Your task to perform on an android device: toggle javascript in the chrome app Image 0: 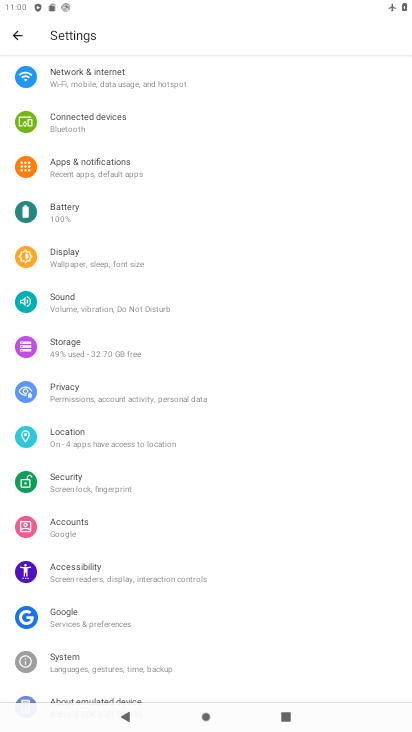
Step 0: click (7, 35)
Your task to perform on an android device: toggle javascript in the chrome app Image 1: 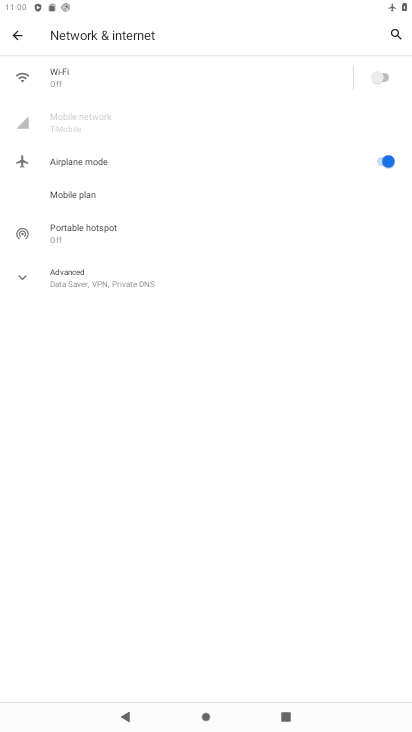
Step 1: click (19, 33)
Your task to perform on an android device: toggle javascript in the chrome app Image 2: 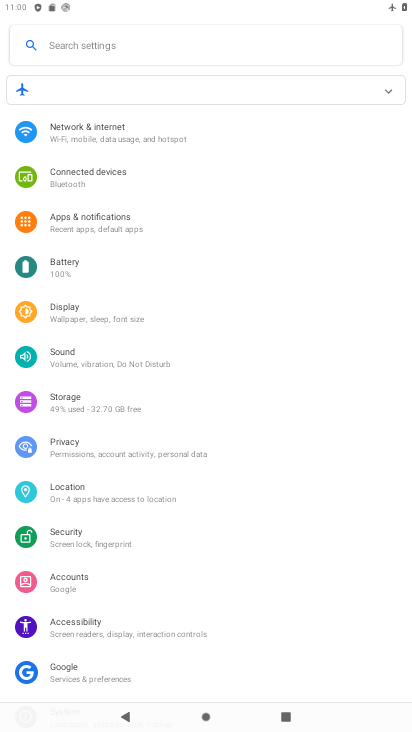
Step 2: press home button
Your task to perform on an android device: toggle javascript in the chrome app Image 3: 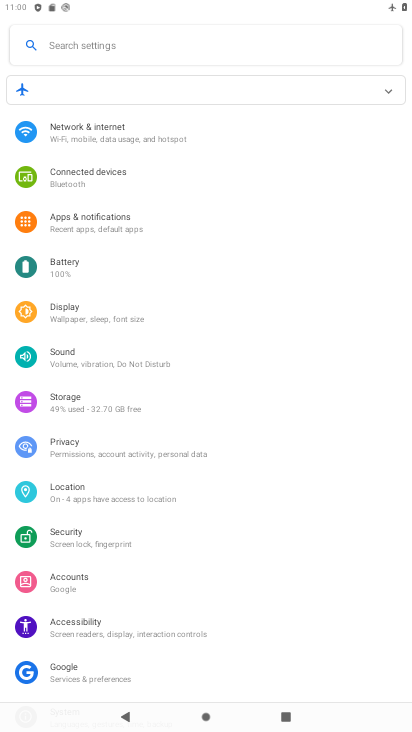
Step 3: press back button
Your task to perform on an android device: toggle javascript in the chrome app Image 4: 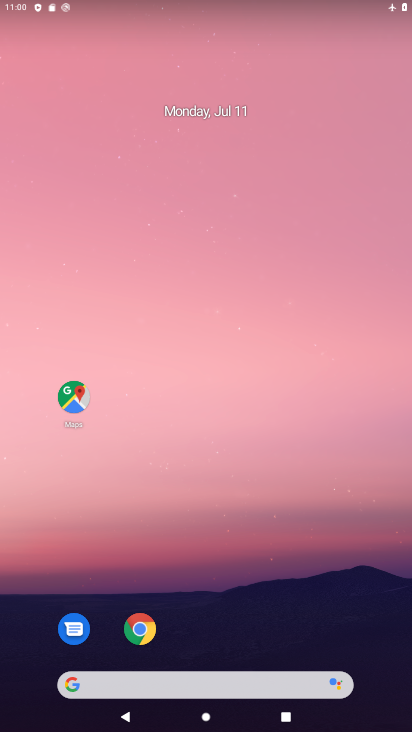
Step 4: drag from (251, 547) to (209, 170)
Your task to perform on an android device: toggle javascript in the chrome app Image 5: 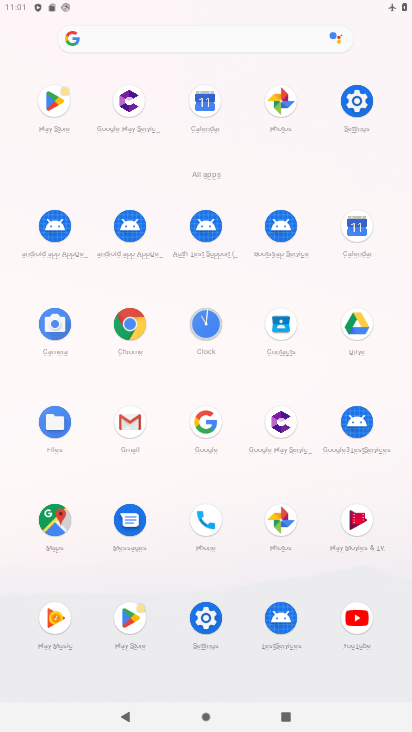
Step 5: click (141, 307)
Your task to perform on an android device: toggle javascript in the chrome app Image 6: 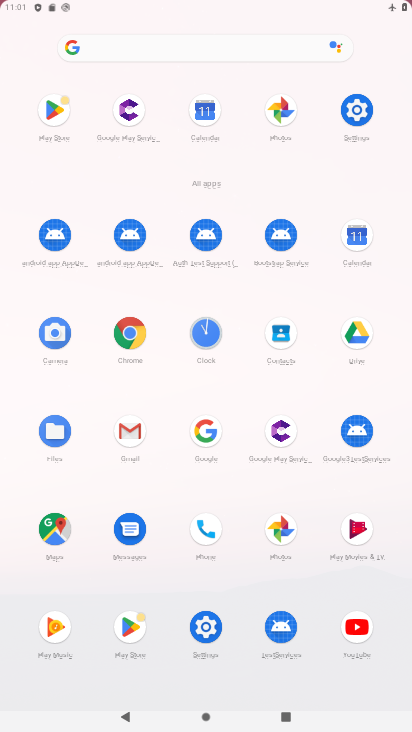
Step 6: click (132, 322)
Your task to perform on an android device: toggle javascript in the chrome app Image 7: 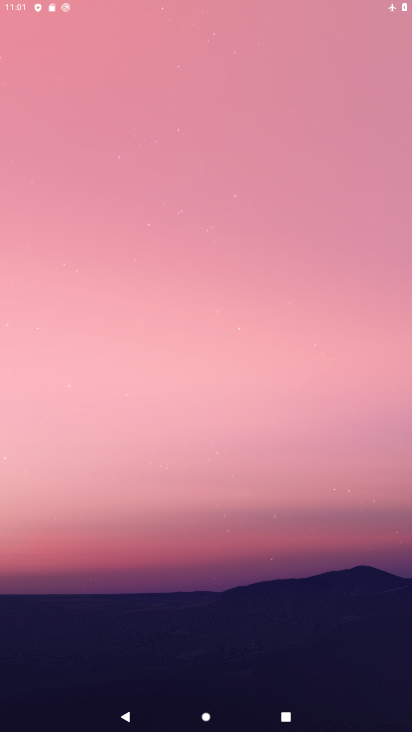
Step 7: click (133, 316)
Your task to perform on an android device: toggle javascript in the chrome app Image 8: 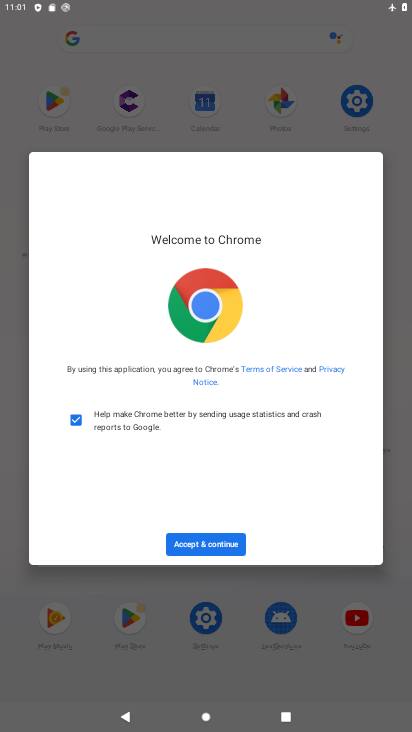
Step 8: click (204, 539)
Your task to perform on an android device: toggle javascript in the chrome app Image 9: 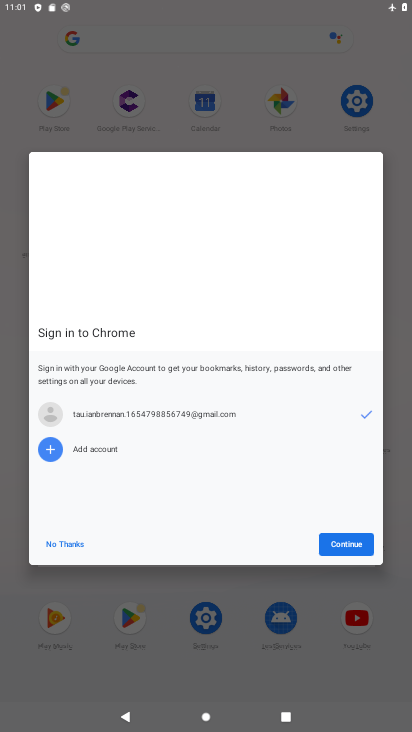
Step 9: click (356, 540)
Your task to perform on an android device: toggle javascript in the chrome app Image 10: 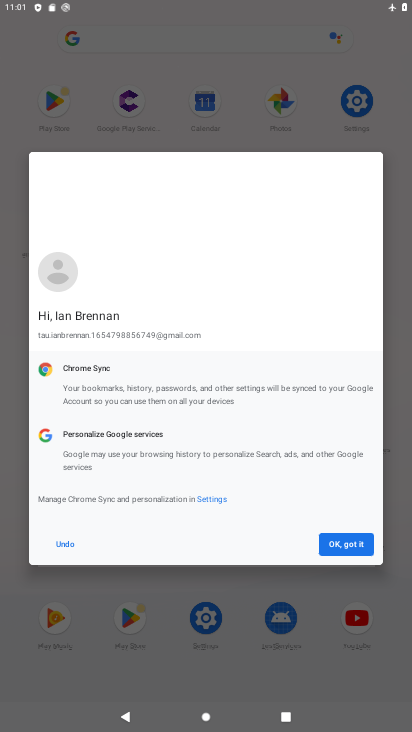
Step 10: click (359, 541)
Your task to perform on an android device: toggle javascript in the chrome app Image 11: 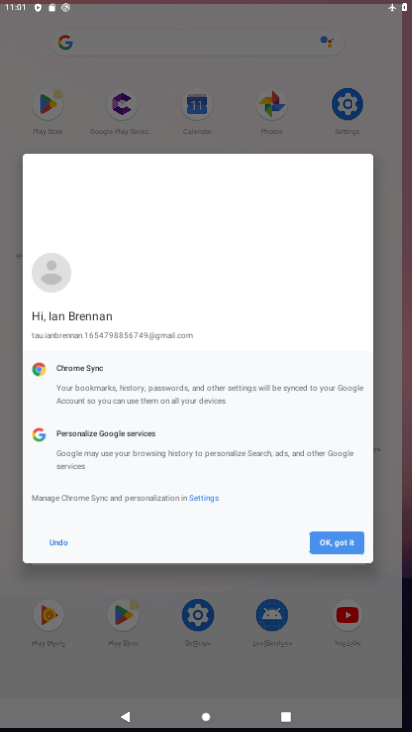
Step 11: click (359, 541)
Your task to perform on an android device: toggle javascript in the chrome app Image 12: 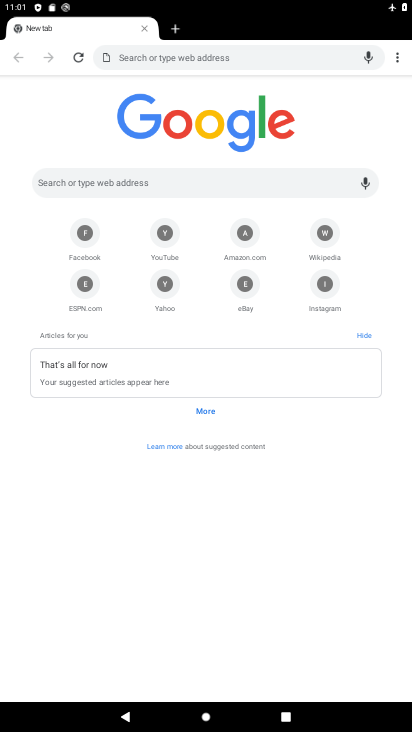
Step 12: drag from (397, 57) to (378, 142)
Your task to perform on an android device: toggle javascript in the chrome app Image 13: 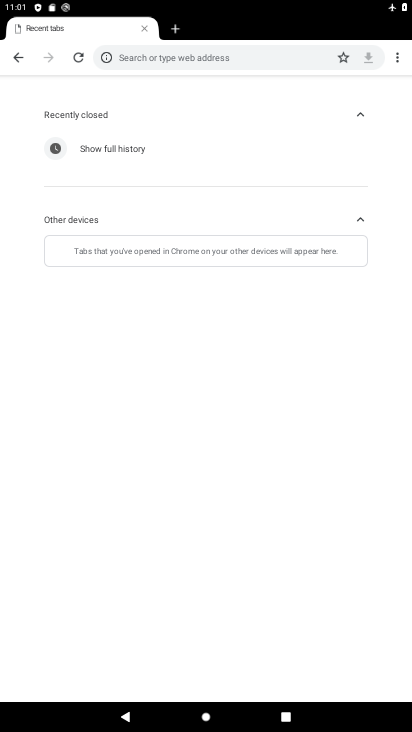
Step 13: click (400, 55)
Your task to perform on an android device: toggle javascript in the chrome app Image 14: 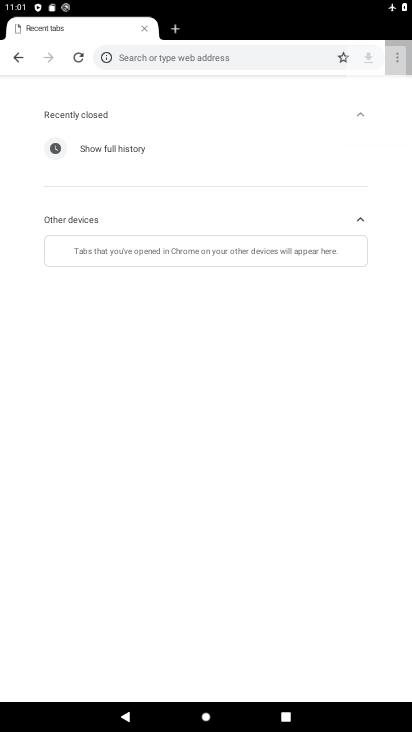
Step 14: click (399, 59)
Your task to perform on an android device: toggle javascript in the chrome app Image 15: 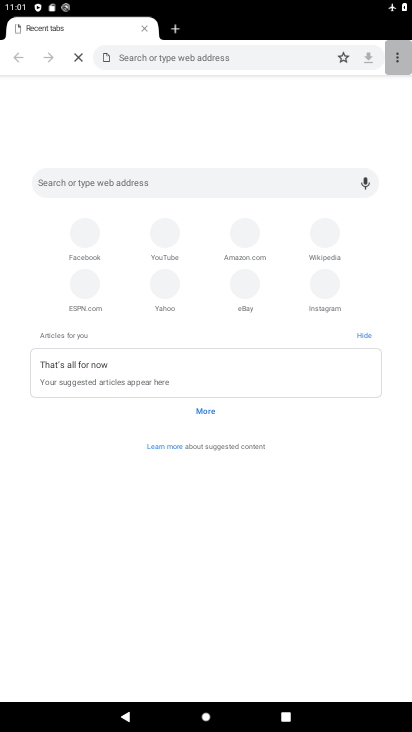
Step 15: click (398, 60)
Your task to perform on an android device: toggle javascript in the chrome app Image 16: 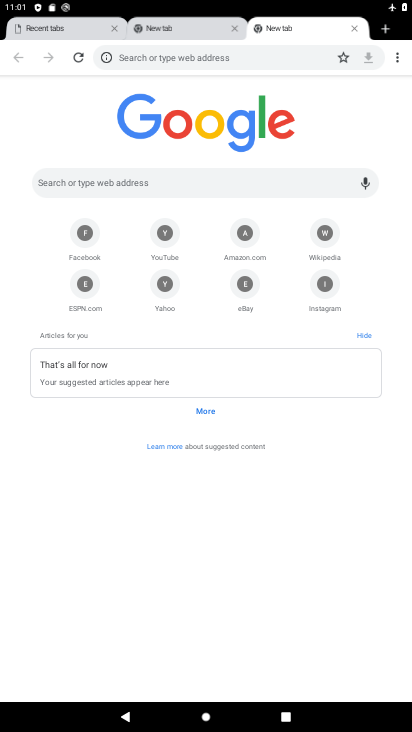
Step 16: click (398, 55)
Your task to perform on an android device: toggle javascript in the chrome app Image 17: 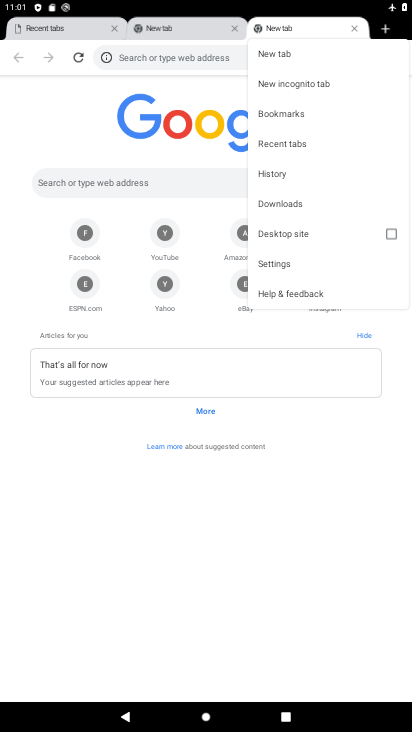
Step 17: click (264, 53)
Your task to perform on an android device: toggle javascript in the chrome app Image 18: 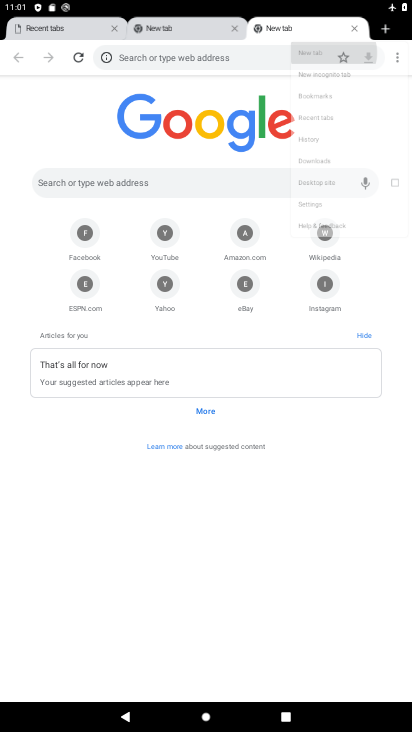
Step 18: click (267, 50)
Your task to perform on an android device: toggle javascript in the chrome app Image 19: 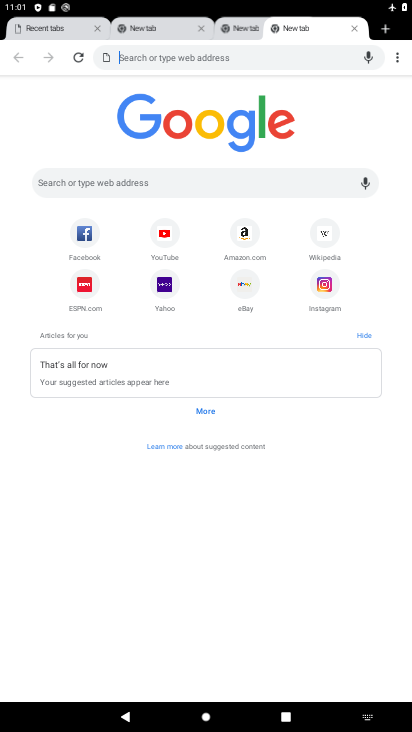
Step 19: click (273, 54)
Your task to perform on an android device: toggle javascript in the chrome app Image 20: 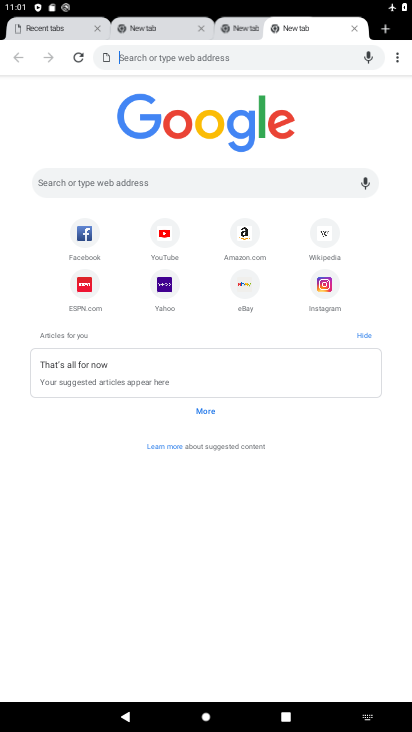
Step 20: click (397, 51)
Your task to perform on an android device: toggle javascript in the chrome app Image 21: 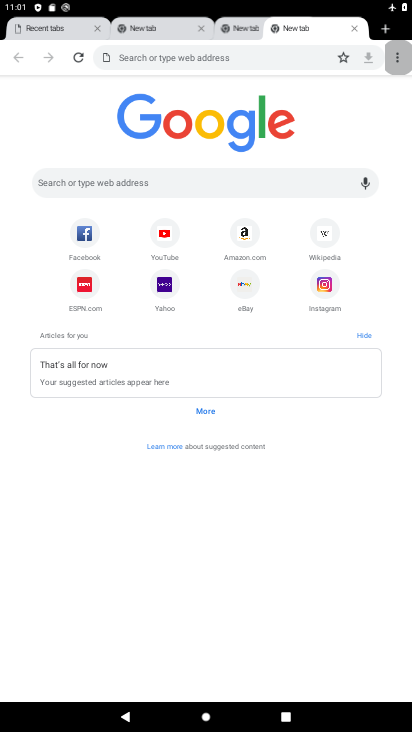
Step 21: click (398, 52)
Your task to perform on an android device: toggle javascript in the chrome app Image 22: 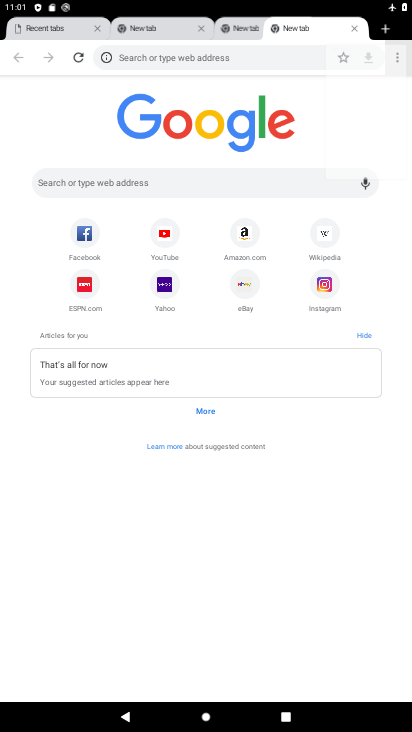
Step 22: click (398, 52)
Your task to perform on an android device: toggle javascript in the chrome app Image 23: 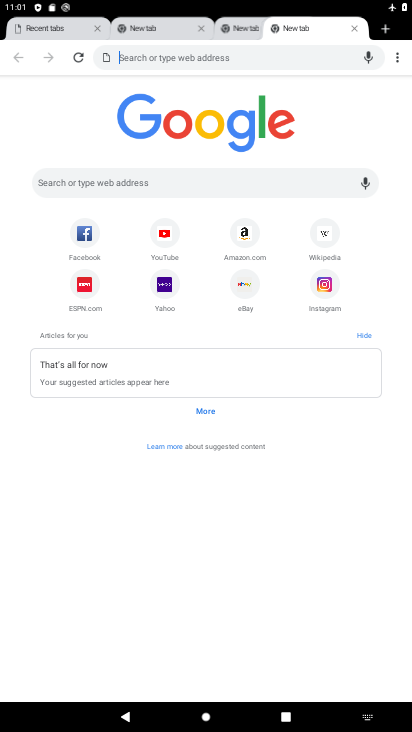
Step 23: drag from (396, 55) to (273, 274)
Your task to perform on an android device: toggle javascript in the chrome app Image 24: 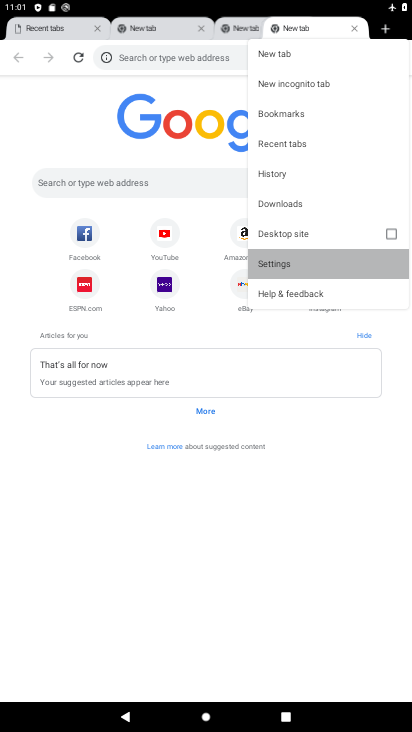
Step 24: click (275, 264)
Your task to perform on an android device: toggle javascript in the chrome app Image 25: 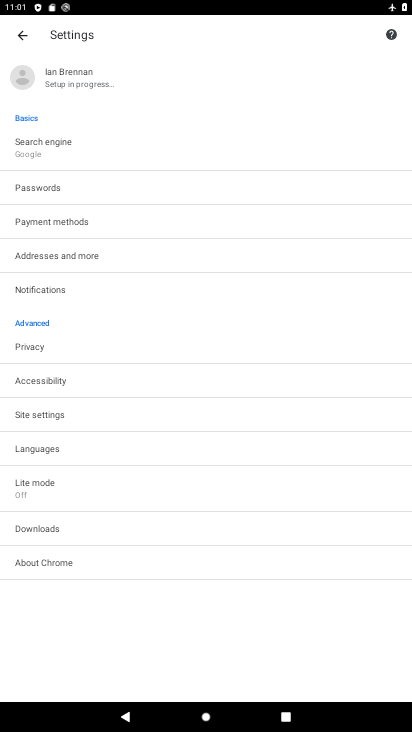
Step 25: click (32, 412)
Your task to perform on an android device: toggle javascript in the chrome app Image 26: 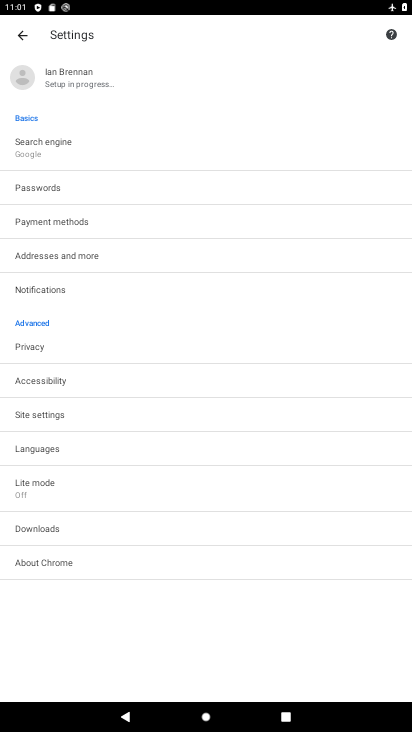
Step 26: click (35, 417)
Your task to perform on an android device: toggle javascript in the chrome app Image 27: 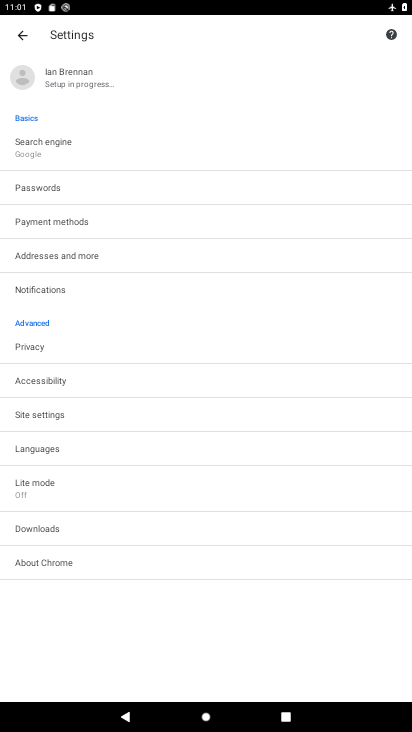
Step 27: click (35, 414)
Your task to perform on an android device: toggle javascript in the chrome app Image 28: 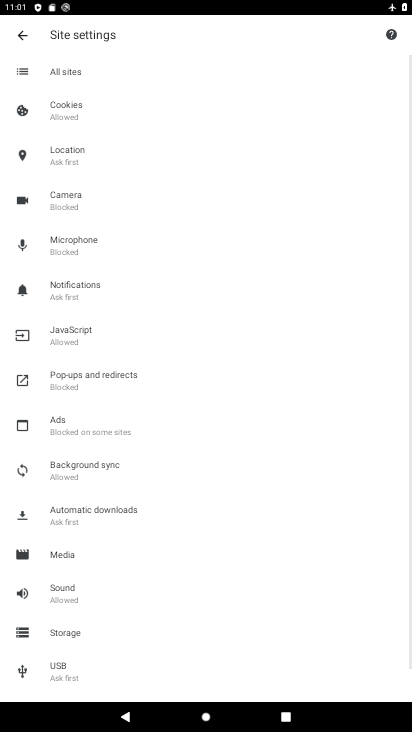
Step 28: click (70, 317)
Your task to perform on an android device: toggle javascript in the chrome app Image 29: 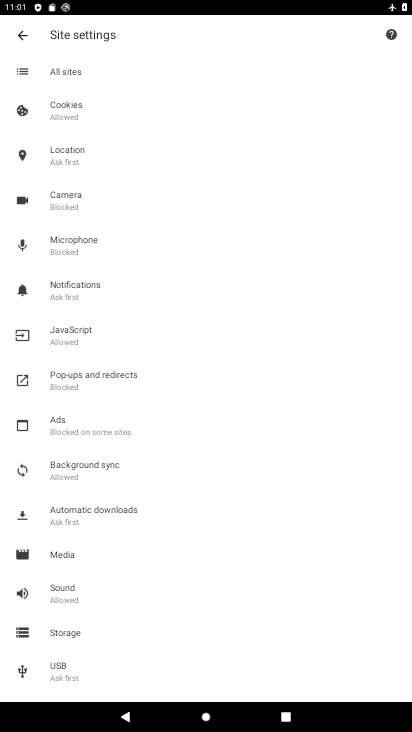
Step 29: click (95, 371)
Your task to perform on an android device: toggle javascript in the chrome app Image 30: 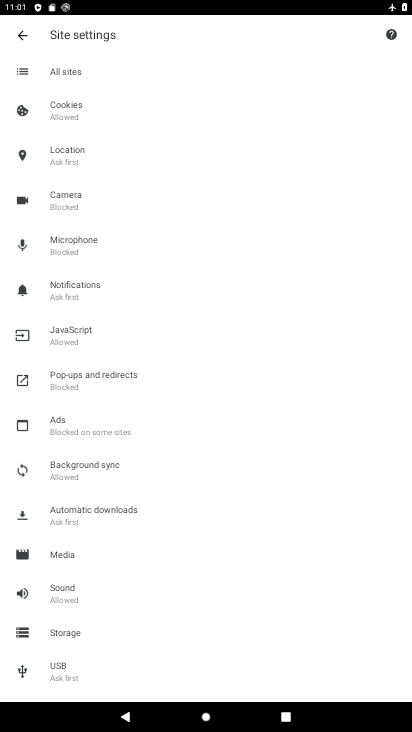
Step 30: click (95, 358)
Your task to perform on an android device: toggle javascript in the chrome app Image 31: 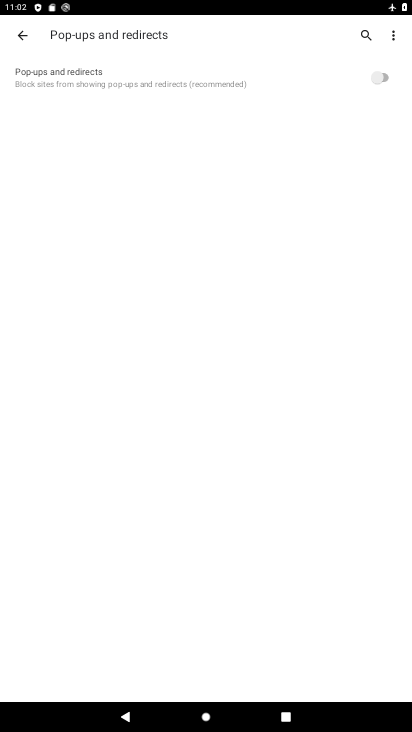
Step 31: click (19, 37)
Your task to perform on an android device: toggle javascript in the chrome app Image 32: 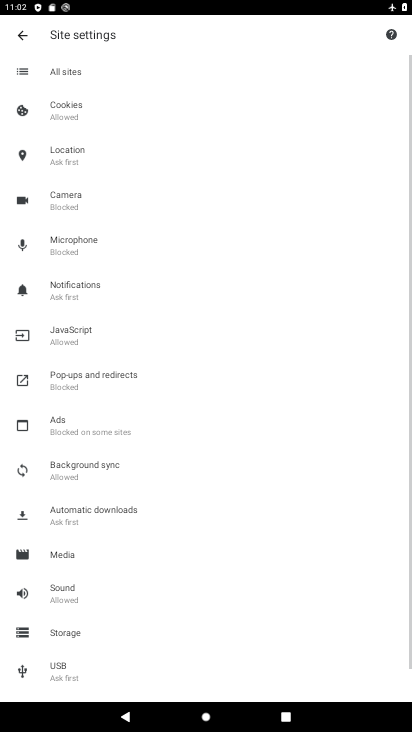
Step 32: click (68, 325)
Your task to perform on an android device: toggle javascript in the chrome app Image 33: 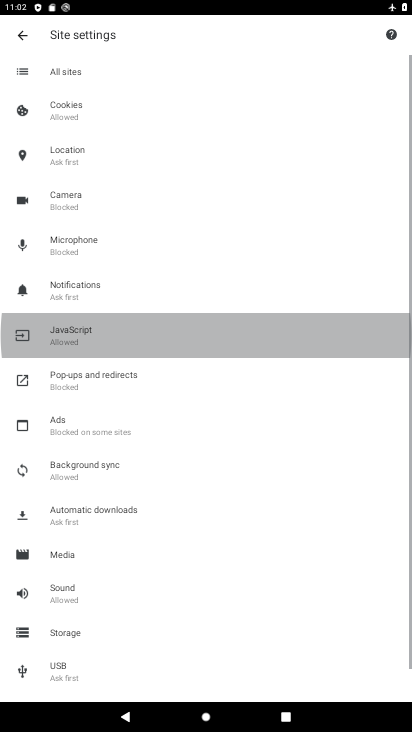
Step 33: click (74, 333)
Your task to perform on an android device: toggle javascript in the chrome app Image 34: 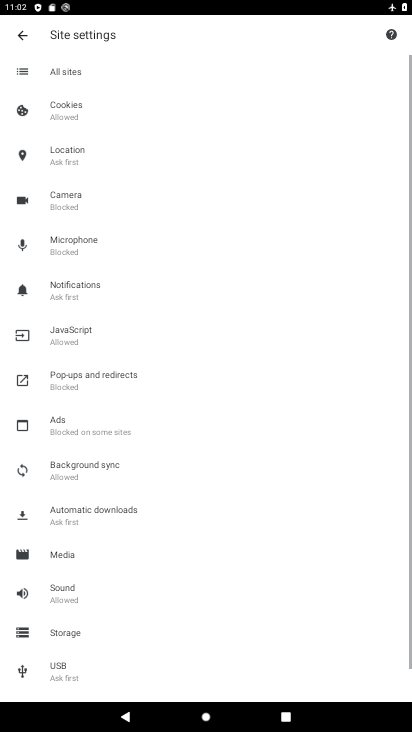
Step 34: click (73, 330)
Your task to perform on an android device: toggle javascript in the chrome app Image 35: 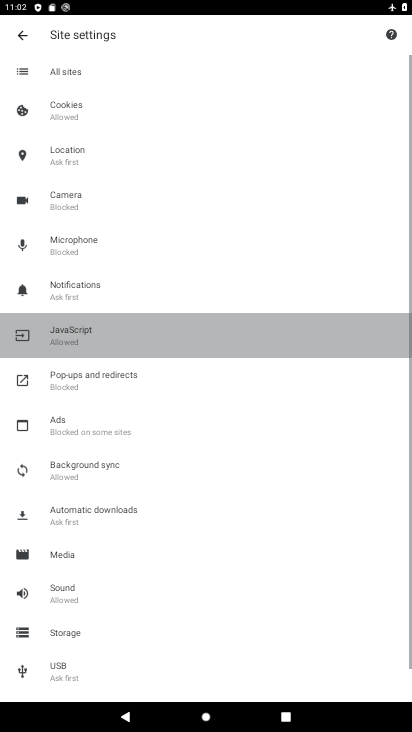
Step 35: click (77, 331)
Your task to perform on an android device: toggle javascript in the chrome app Image 36: 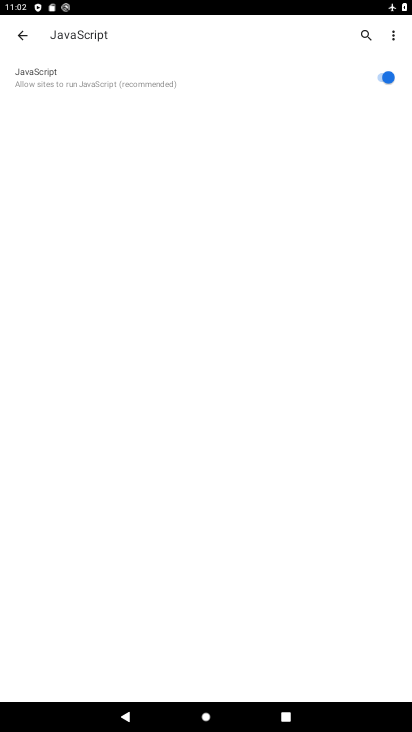
Step 36: task complete